Your task to perform on an android device: turn on improve location accuracy Image 0: 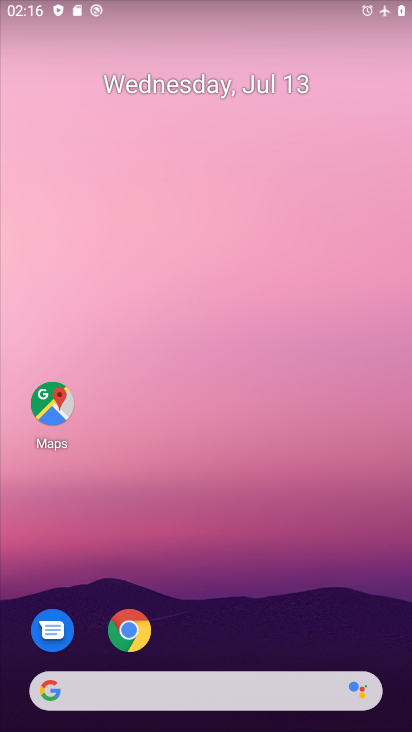
Step 0: drag from (187, 606) to (187, 226)
Your task to perform on an android device: turn on improve location accuracy Image 1: 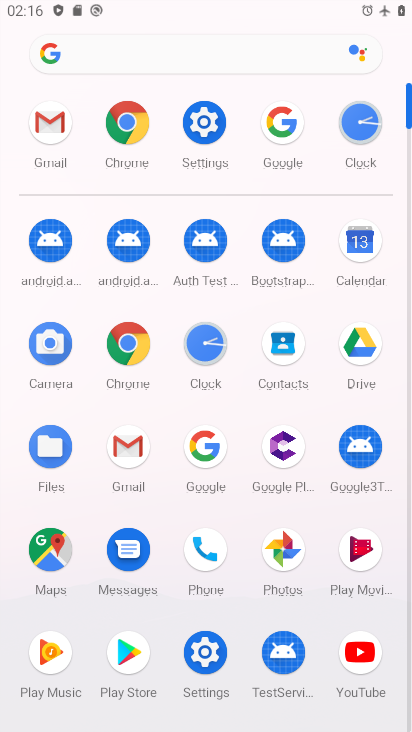
Step 1: click (215, 643)
Your task to perform on an android device: turn on improve location accuracy Image 2: 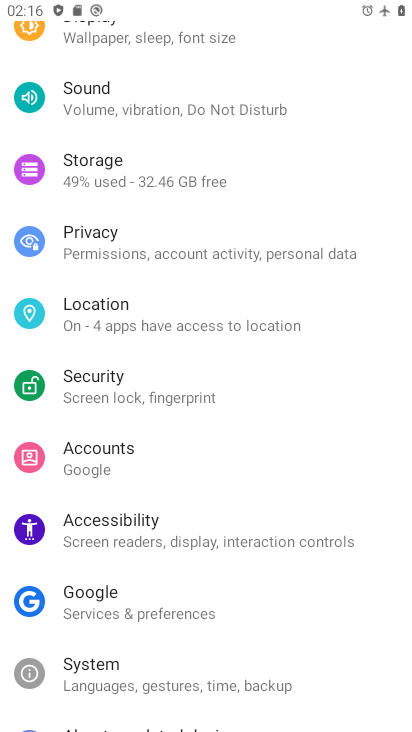
Step 2: click (144, 333)
Your task to perform on an android device: turn on improve location accuracy Image 3: 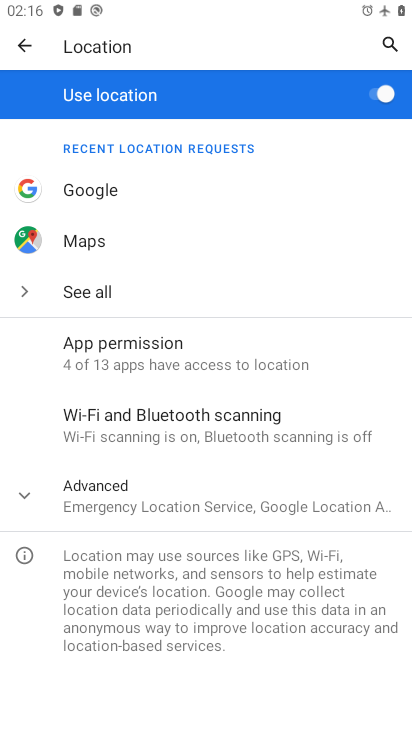
Step 3: click (231, 484)
Your task to perform on an android device: turn on improve location accuracy Image 4: 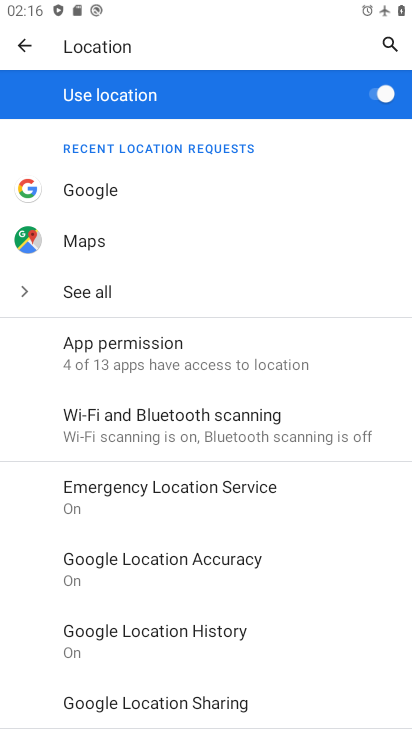
Step 4: click (225, 572)
Your task to perform on an android device: turn on improve location accuracy Image 5: 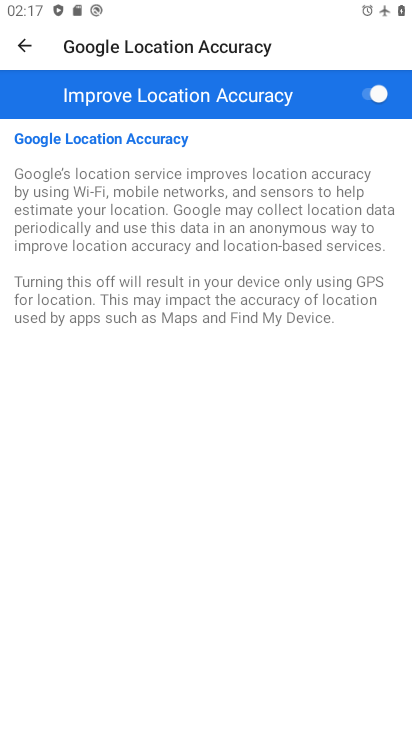
Step 5: task complete